Your task to perform on an android device: Go to network settings Image 0: 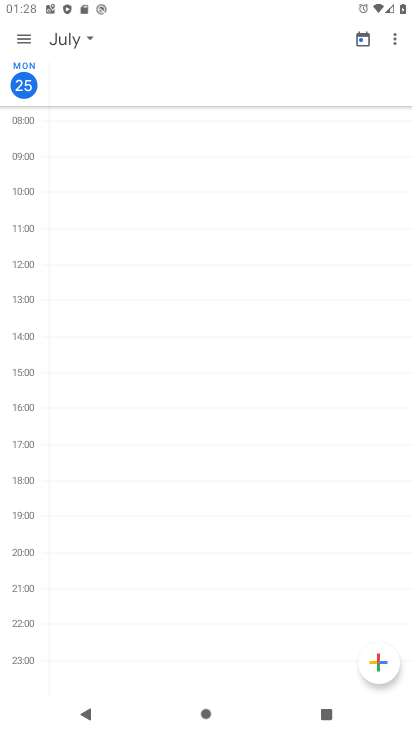
Step 0: press home button
Your task to perform on an android device: Go to network settings Image 1: 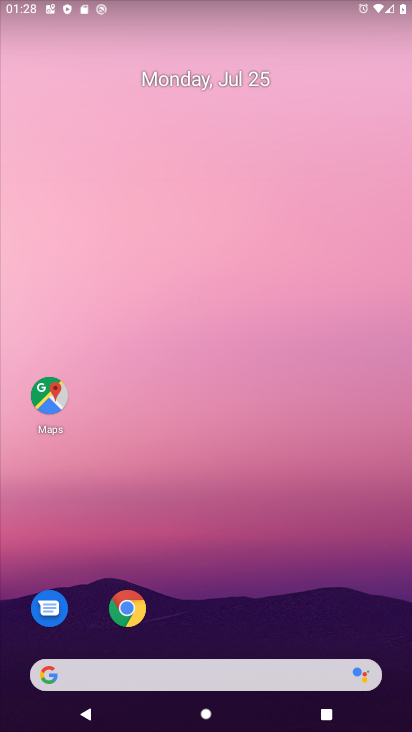
Step 1: click (193, 664)
Your task to perform on an android device: Go to network settings Image 2: 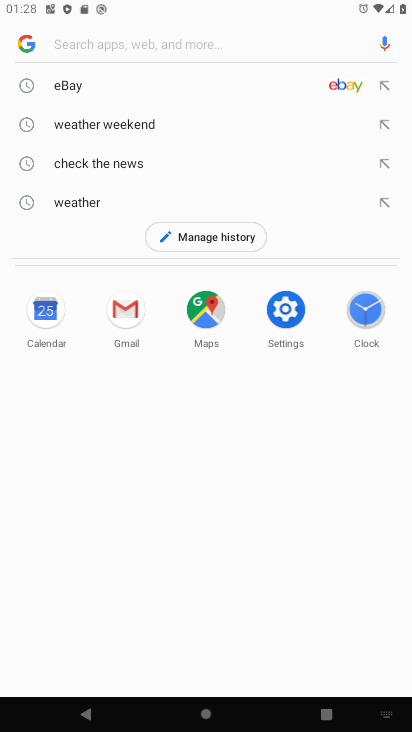
Step 2: drag from (202, 656) to (221, 435)
Your task to perform on an android device: Go to network settings Image 3: 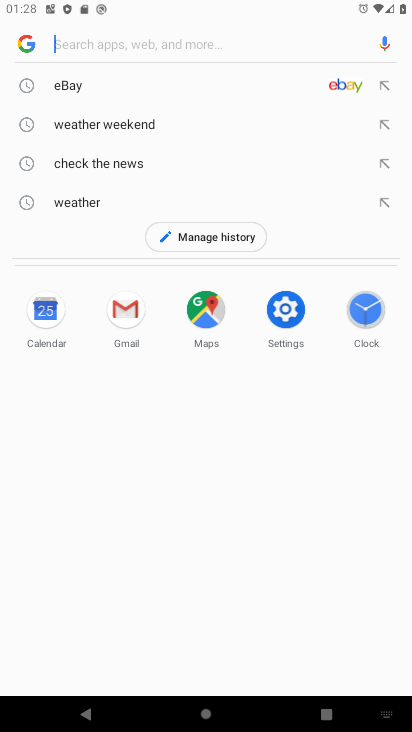
Step 3: press home button
Your task to perform on an android device: Go to network settings Image 4: 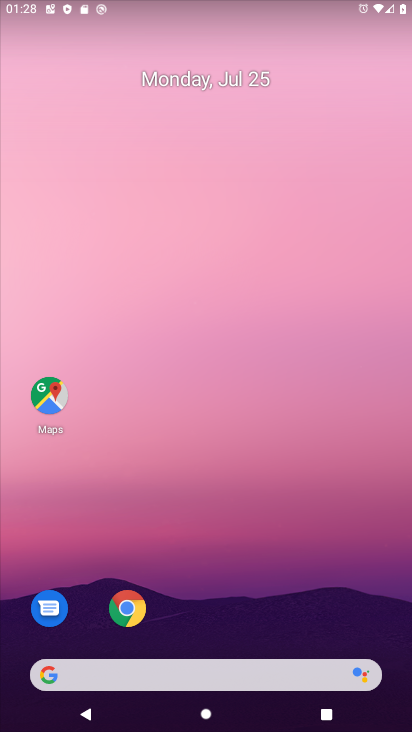
Step 4: drag from (217, 645) to (174, 114)
Your task to perform on an android device: Go to network settings Image 5: 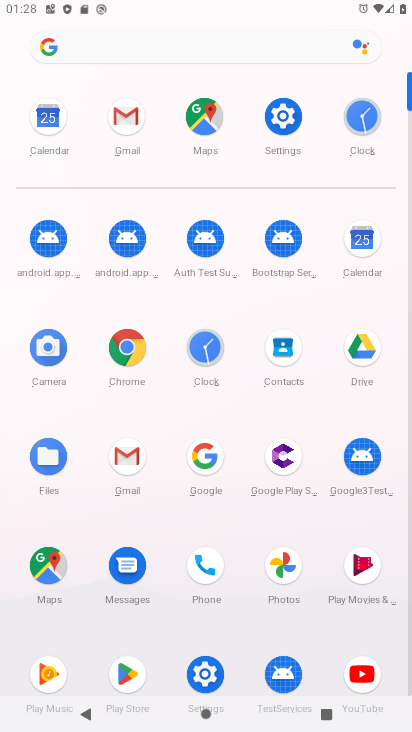
Step 5: click (314, 113)
Your task to perform on an android device: Go to network settings Image 6: 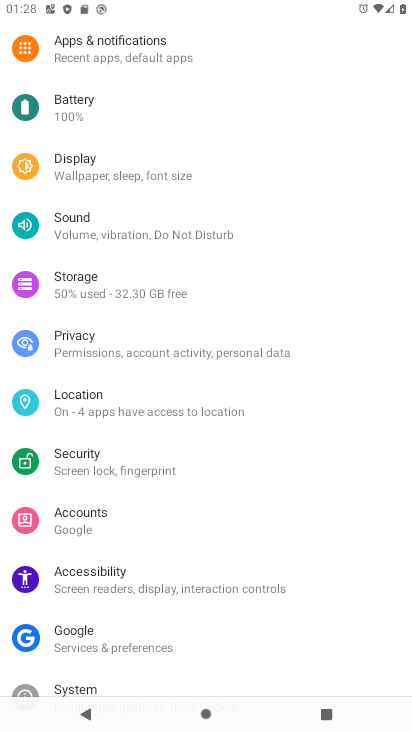
Step 6: click (269, 118)
Your task to perform on an android device: Go to network settings Image 7: 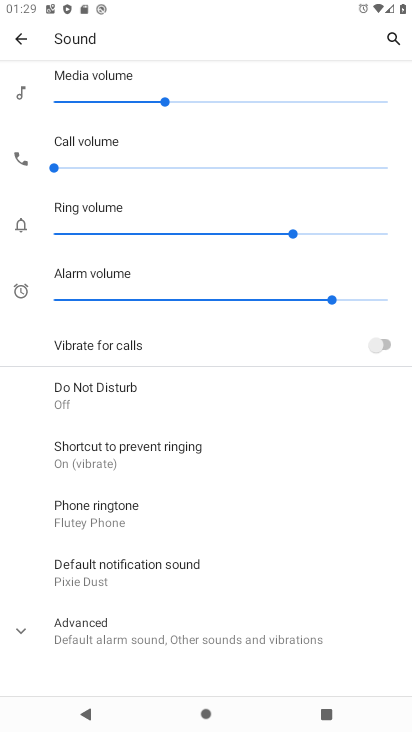
Step 7: click (14, 39)
Your task to perform on an android device: Go to network settings Image 8: 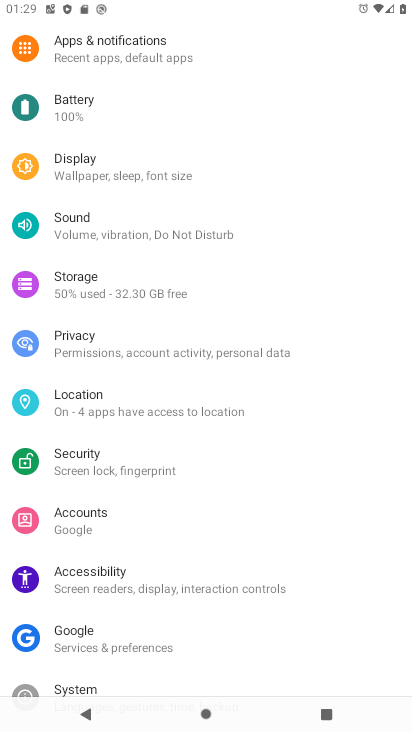
Step 8: drag from (105, 166) to (75, 413)
Your task to perform on an android device: Go to network settings Image 9: 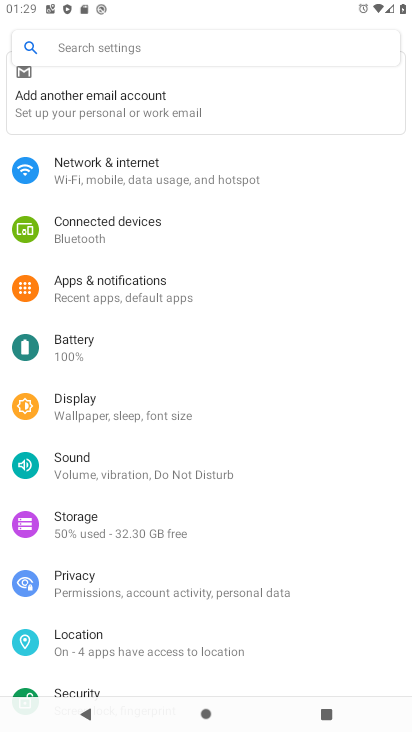
Step 9: click (51, 171)
Your task to perform on an android device: Go to network settings Image 10: 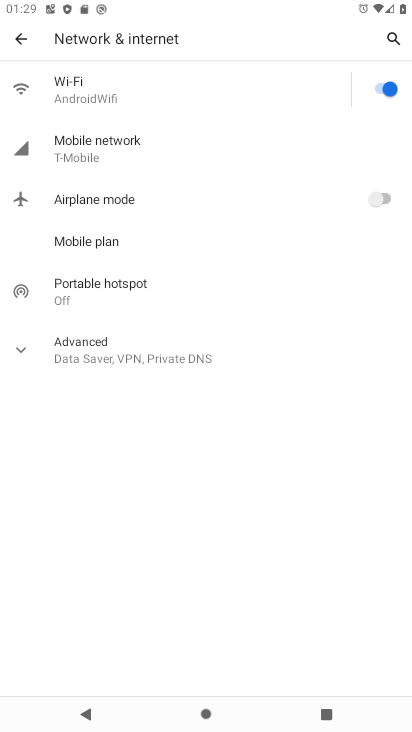
Step 10: click (49, 333)
Your task to perform on an android device: Go to network settings Image 11: 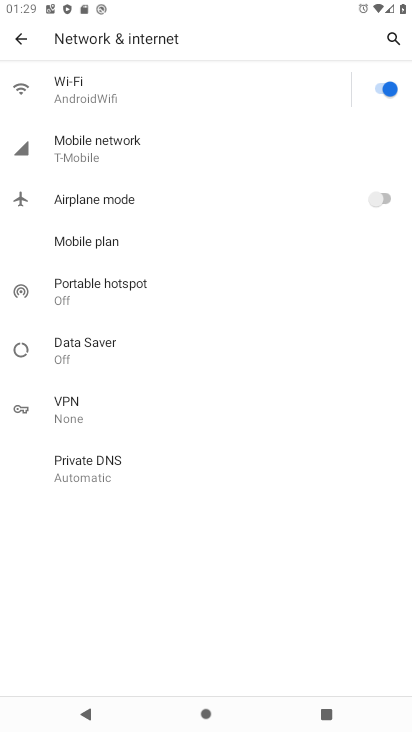
Step 11: task complete